Your task to perform on an android device: change timer sound Image 0: 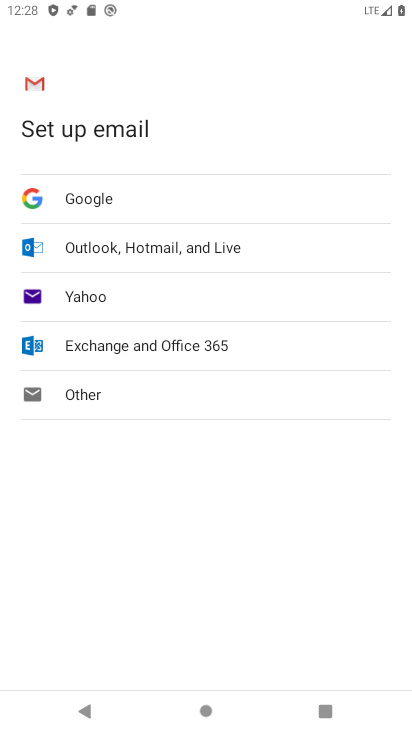
Step 0: press home button
Your task to perform on an android device: change timer sound Image 1: 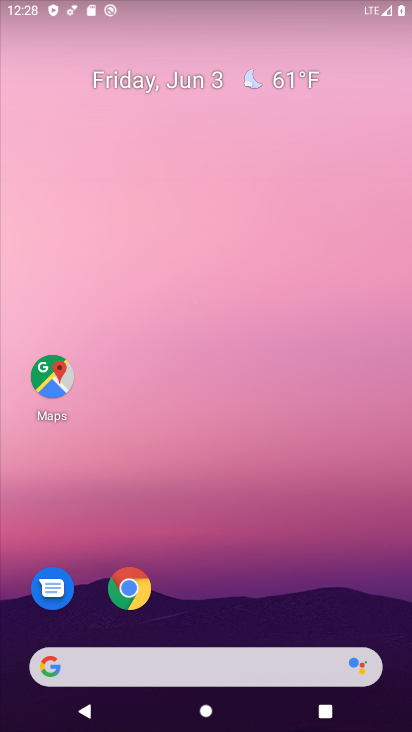
Step 1: drag from (231, 564) to (171, 140)
Your task to perform on an android device: change timer sound Image 2: 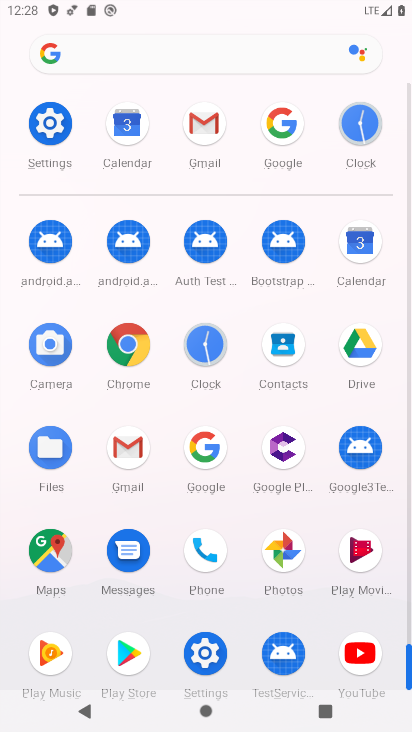
Step 2: click (198, 358)
Your task to perform on an android device: change timer sound Image 3: 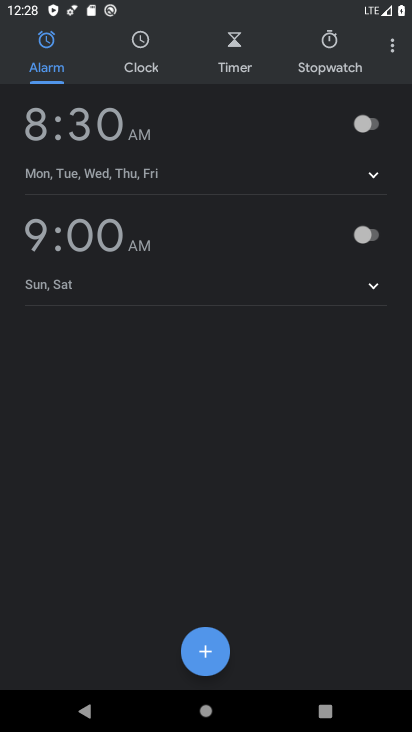
Step 3: click (390, 57)
Your task to perform on an android device: change timer sound Image 4: 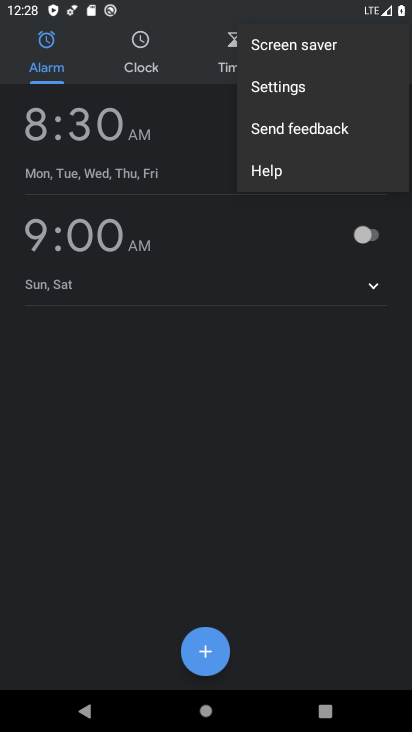
Step 4: click (322, 93)
Your task to perform on an android device: change timer sound Image 5: 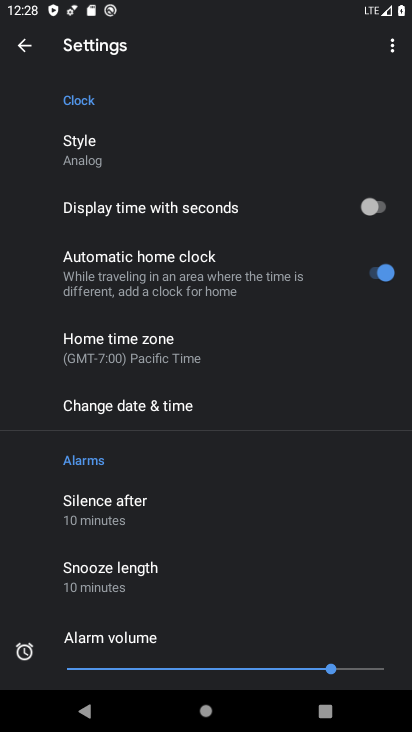
Step 5: drag from (188, 551) to (153, 209)
Your task to perform on an android device: change timer sound Image 6: 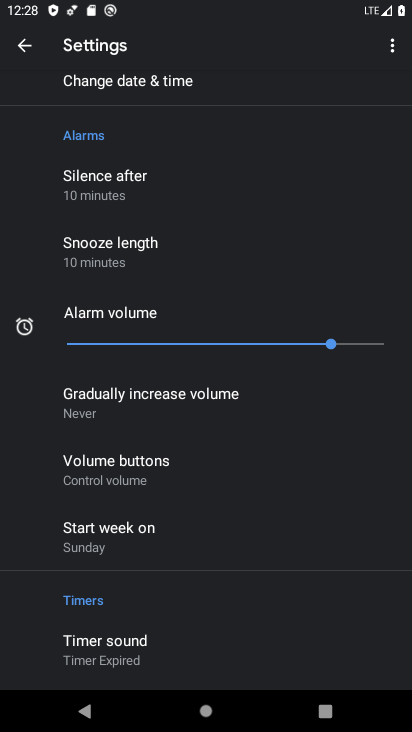
Step 6: click (166, 636)
Your task to perform on an android device: change timer sound Image 7: 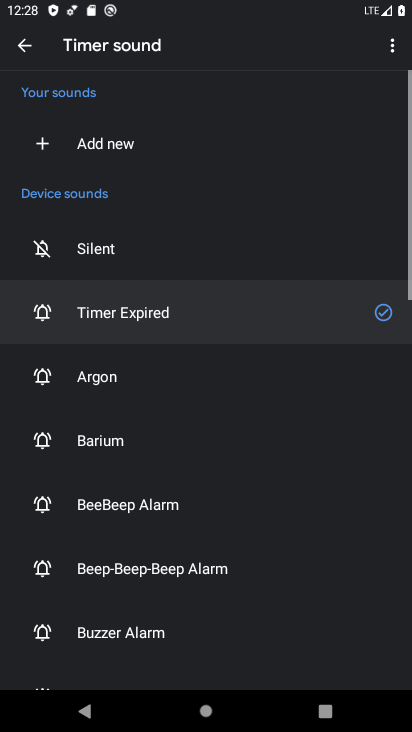
Step 7: click (185, 383)
Your task to perform on an android device: change timer sound Image 8: 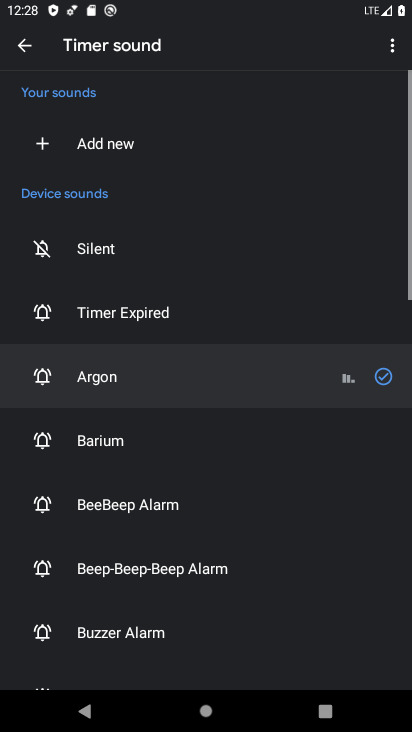
Step 8: task complete